Your task to perform on an android device: open a bookmark in the chrome app Image 0: 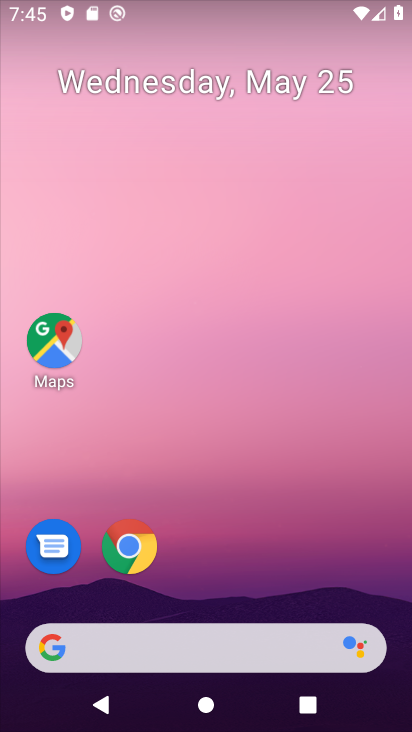
Step 0: click (131, 556)
Your task to perform on an android device: open a bookmark in the chrome app Image 1: 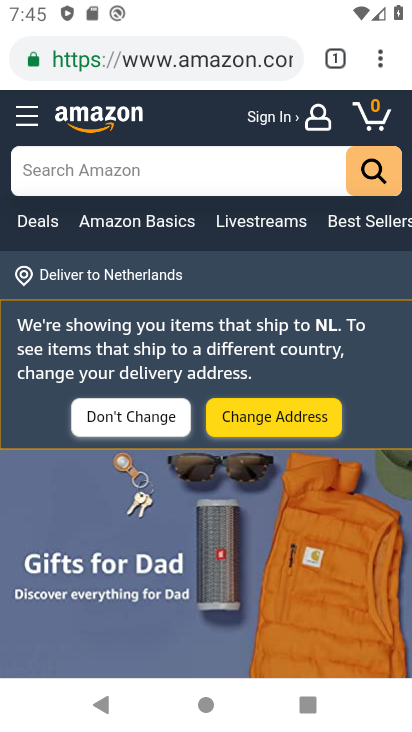
Step 1: click (388, 58)
Your task to perform on an android device: open a bookmark in the chrome app Image 2: 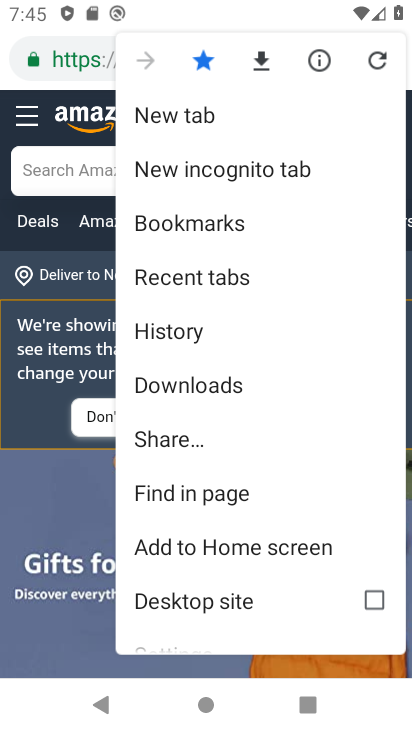
Step 2: click (204, 232)
Your task to perform on an android device: open a bookmark in the chrome app Image 3: 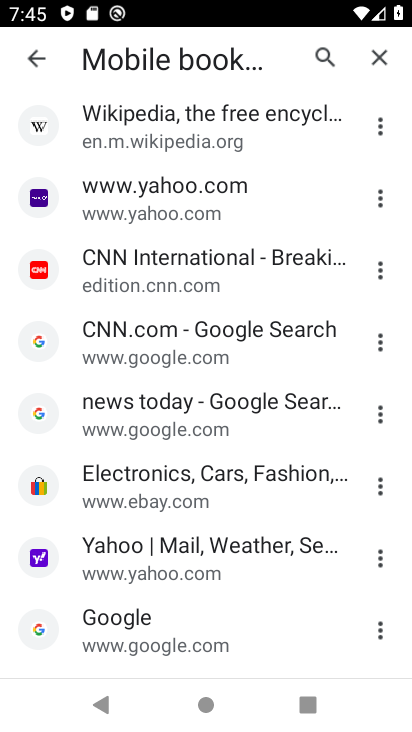
Step 3: click (186, 130)
Your task to perform on an android device: open a bookmark in the chrome app Image 4: 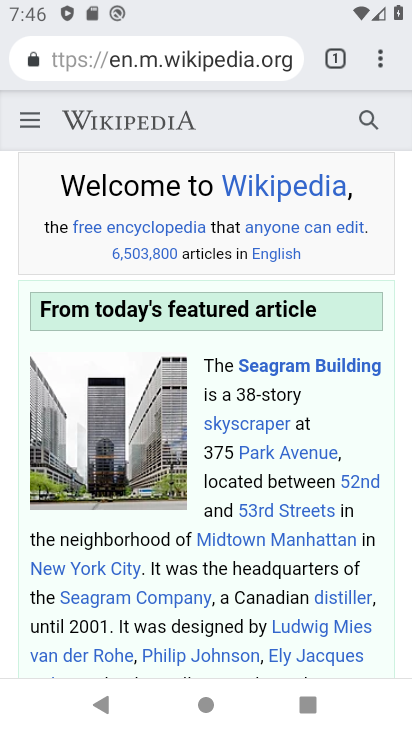
Step 4: task complete